Your task to perform on an android device: Open accessibility settings Image 0: 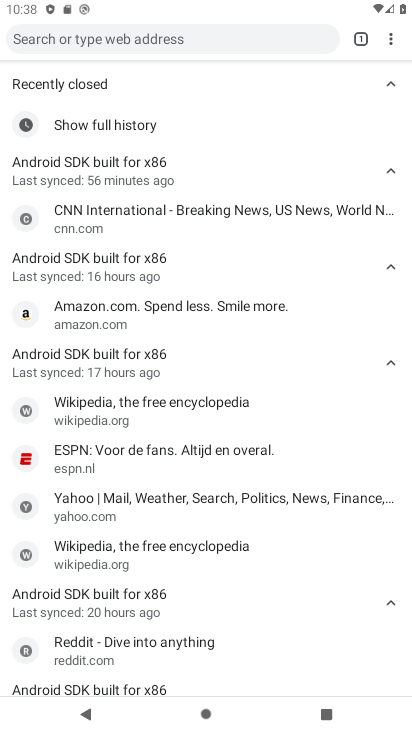
Step 0: press home button
Your task to perform on an android device: Open accessibility settings Image 1: 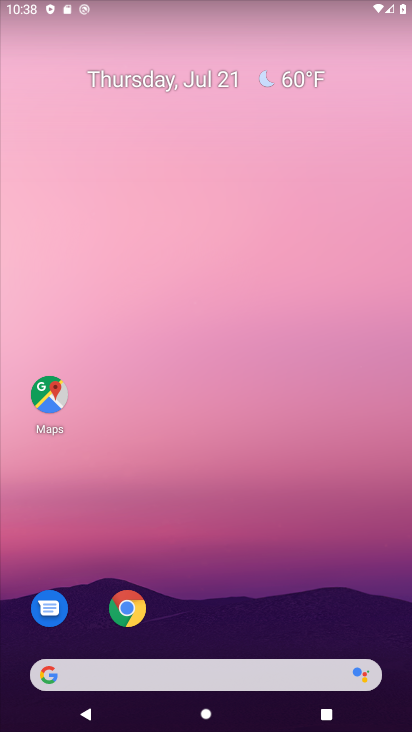
Step 1: drag from (226, 649) to (250, 127)
Your task to perform on an android device: Open accessibility settings Image 2: 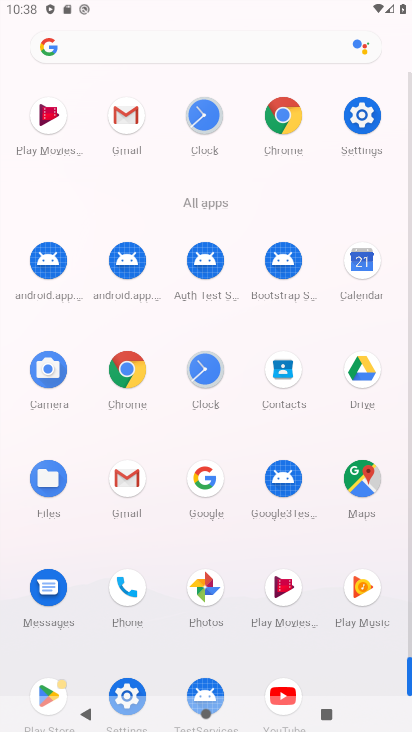
Step 2: click (128, 682)
Your task to perform on an android device: Open accessibility settings Image 3: 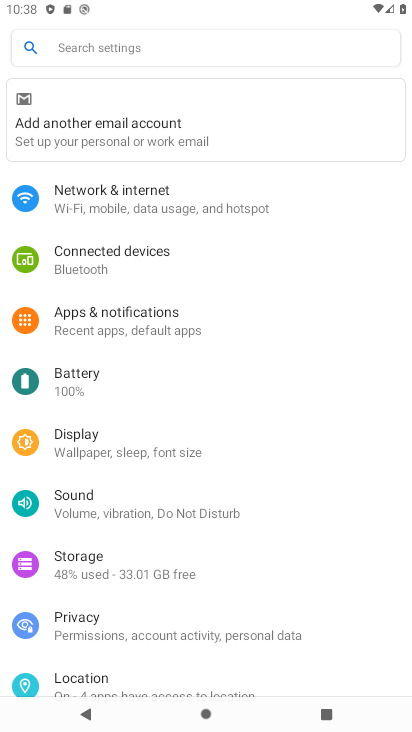
Step 3: drag from (131, 624) to (167, 353)
Your task to perform on an android device: Open accessibility settings Image 4: 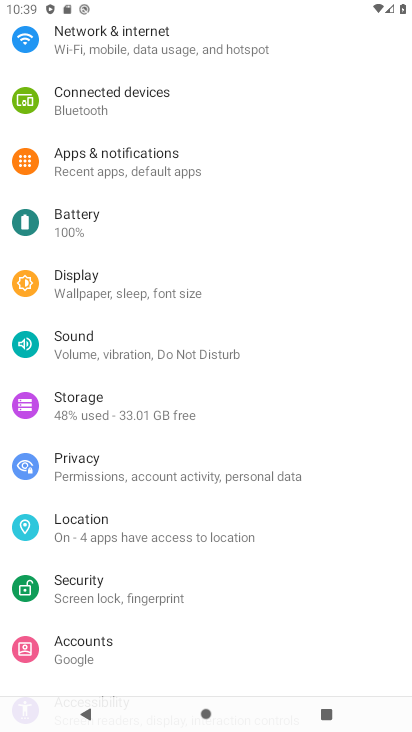
Step 4: drag from (108, 591) to (134, 375)
Your task to perform on an android device: Open accessibility settings Image 5: 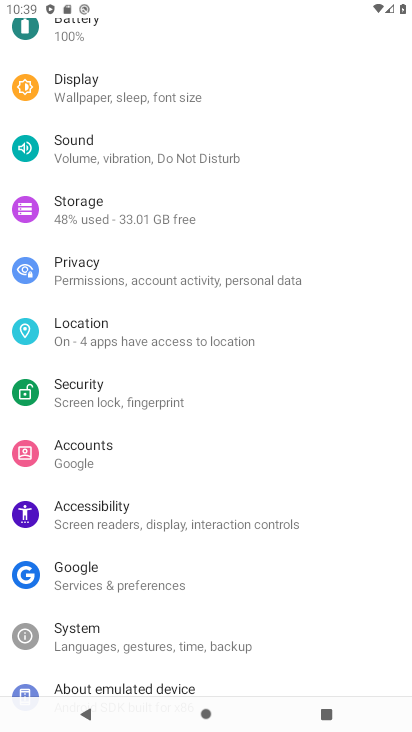
Step 5: click (120, 514)
Your task to perform on an android device: Open accessibility settings Image 6: 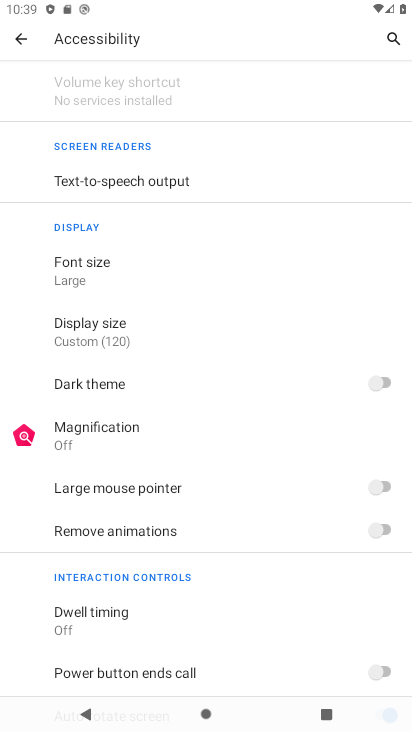
Step 6: task complete